Your task to perform on an android device: Open display settings Image 0: 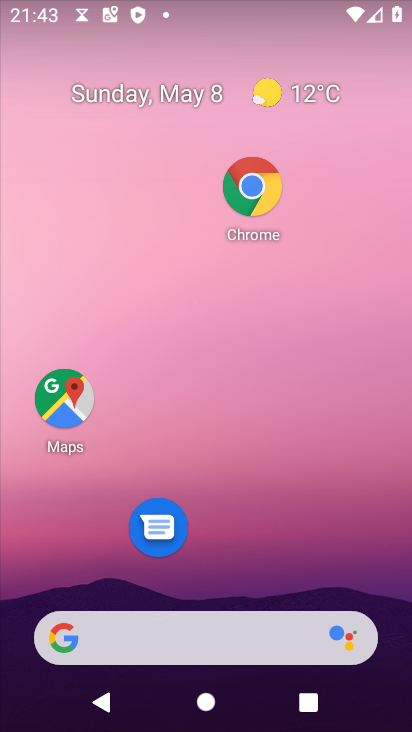
Step 0: drag from (298, 528) to (297, 205)
Your task to perform on an android device: Open display settings Image 1: 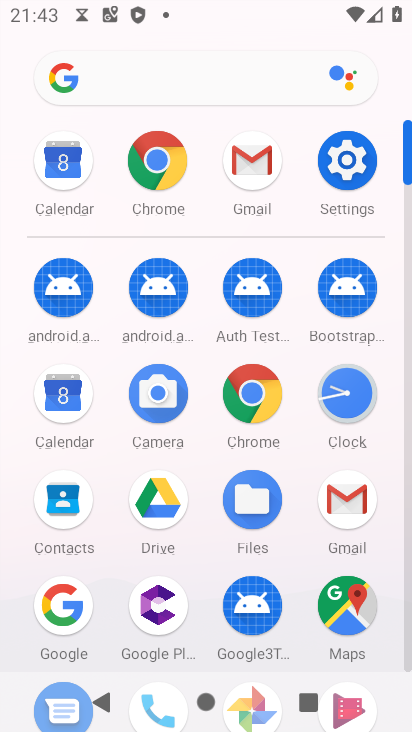
Step 1: click (334, 156)
Your task to perform on an android device: Open display settings Image 2: 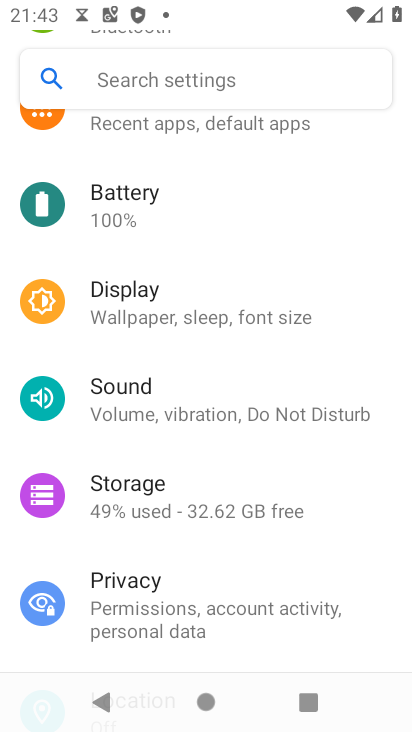
Step 2: click (147, 295)
Your task to perform on an android device: Open display settings Image 3: 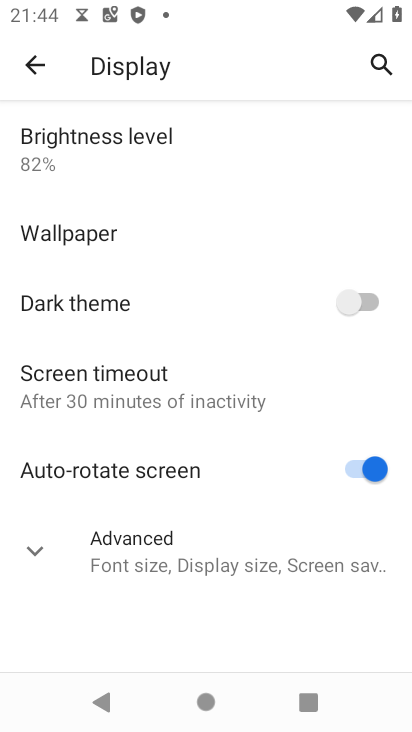
Step 3: task complete